Your task to perform on an android device: Open calendar and show me the first week of next month Image 0: 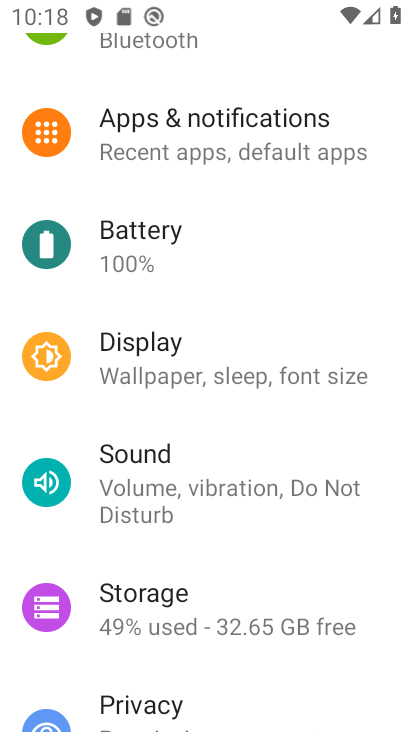
Step 0: press home button
Your task to perform on an android device: Open calendar and show me the first week of next month Image 1: 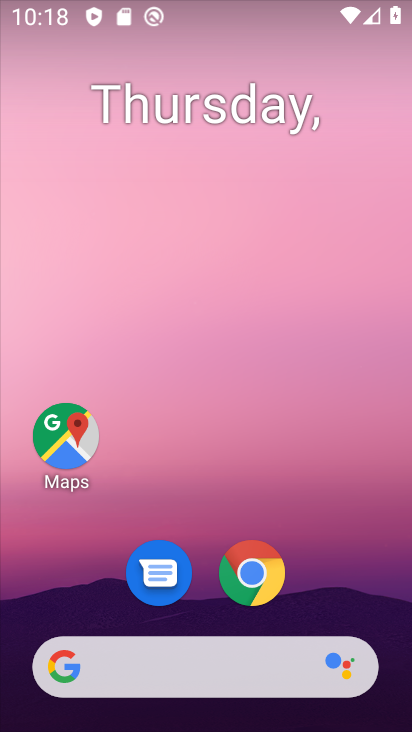
Step 1: drag from (296, 530) to (210, 80)
Your task to perform on an android device: Open calendar and show me the first week of next month Image 2: 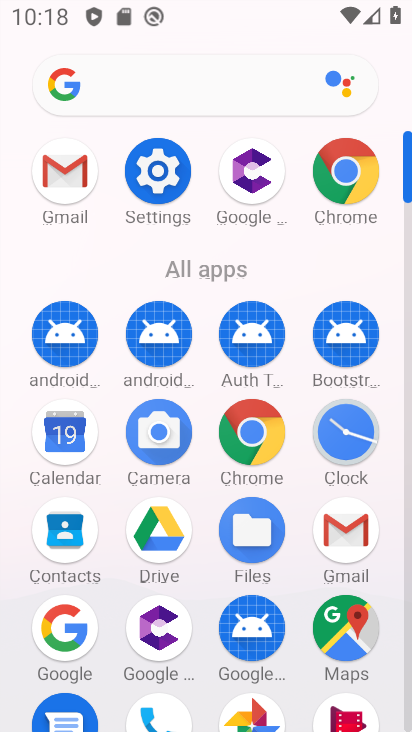
Step 2: click (77, 432)
Your task to perform on an android device: Open calendar and show me the first week of next month Image 3: 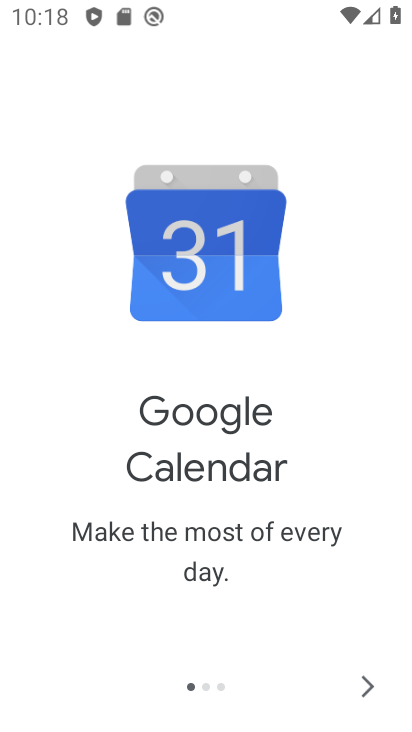
Step 3: click (359, 685)
Your task to perform on an android device: Open calendar and show me the first week of next month Image 4: 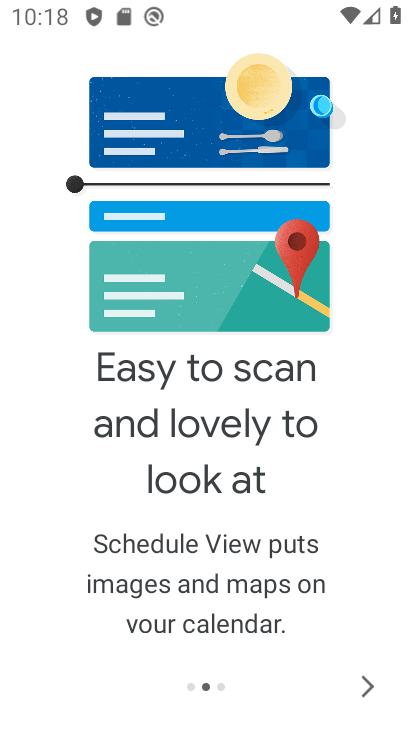
Step 4: click (359, 685)
Your task to perform on an android device: Open calendar and show me the first week of next month Image 5: 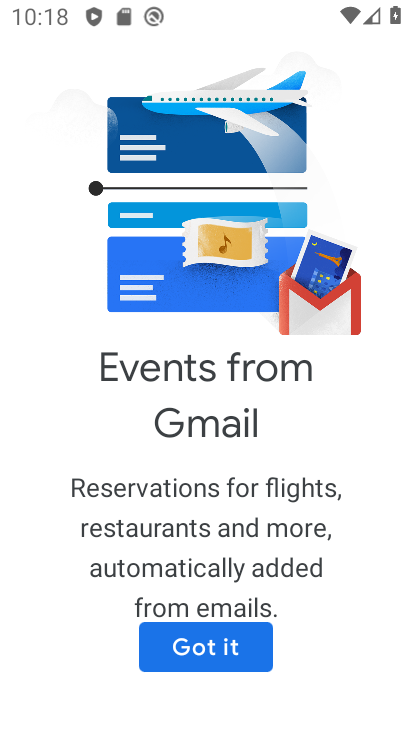
Step 5: click (238, 665)
Your task to perform on an android device: Open calendar and show me the first week of next month Image 6: 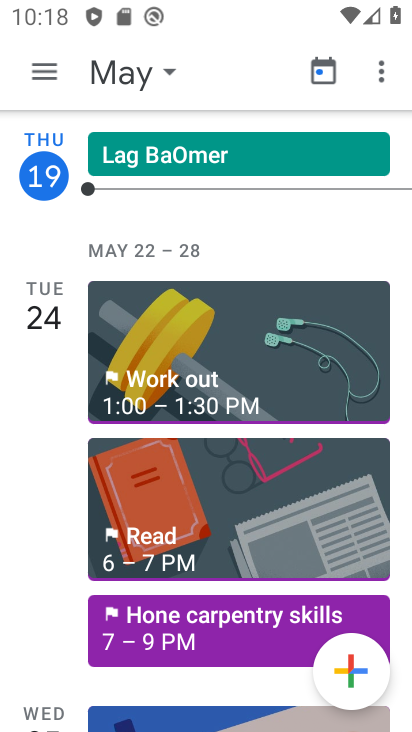
Step 6: click (109, 68)
Your task to perform on an android device: Open calendar and show me the first week of next month Image 7: 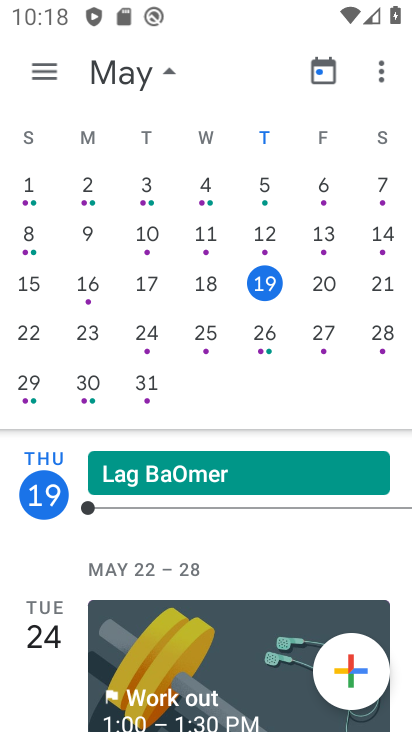
Step 7: drag from (396, 269) to (20, 279)
Your task to perform on an android device: Open calendar and show me the first week of next month Image 8: 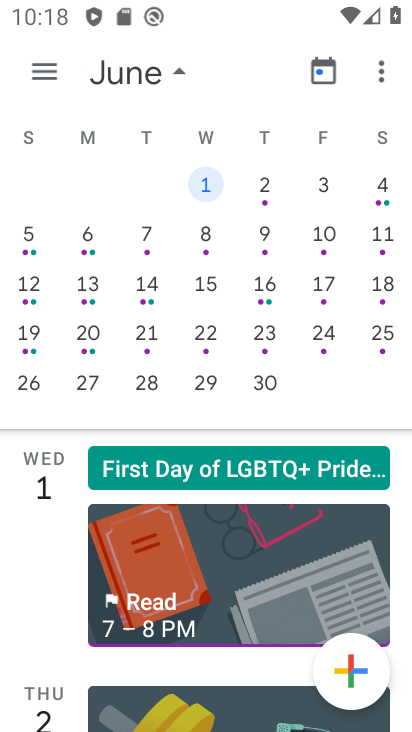
Step 8: click (322, 184)
Your task to perform on an android device: Open calendar and show me the first week of next month Image 9: 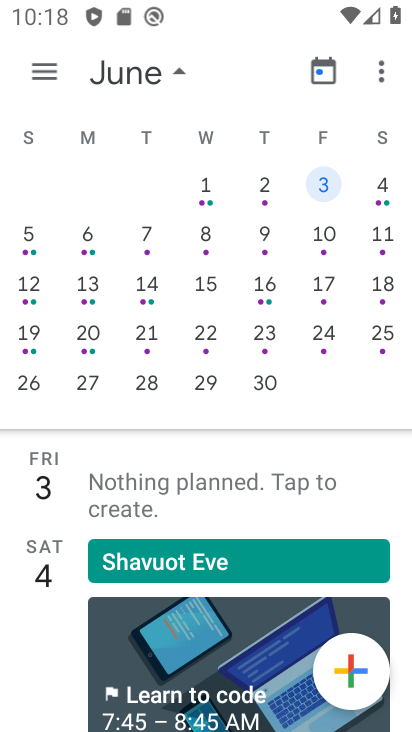
Step 9: click (39, 57)
Your task to perform on an android device: Open calendar and show me the first week of next month Image 10: 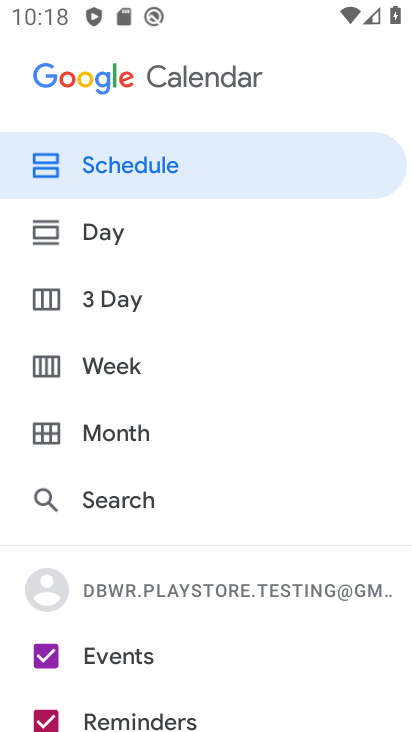
Step 10: click (111, 372)
Your task to perform on an android device: Open calendar and show me the first week of next month Image 11: 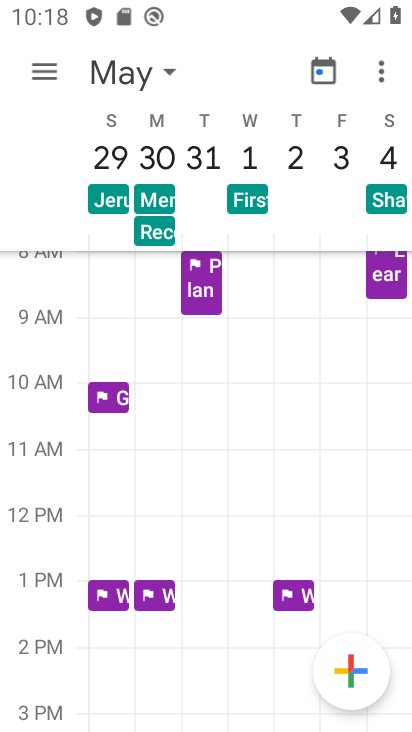
Step 11: task complete